Your task to perform on an android device: Open the calendar and show me this week's events? Image 0: 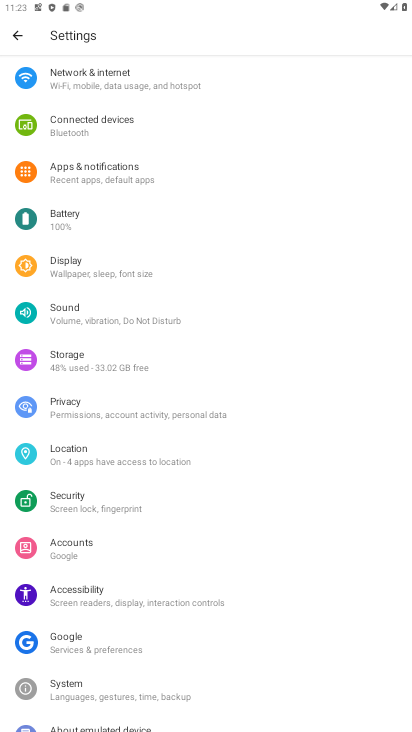
Step 0: press home button
Your task to perform on an android device: Open the calendar and show me this week's events? Image 1: 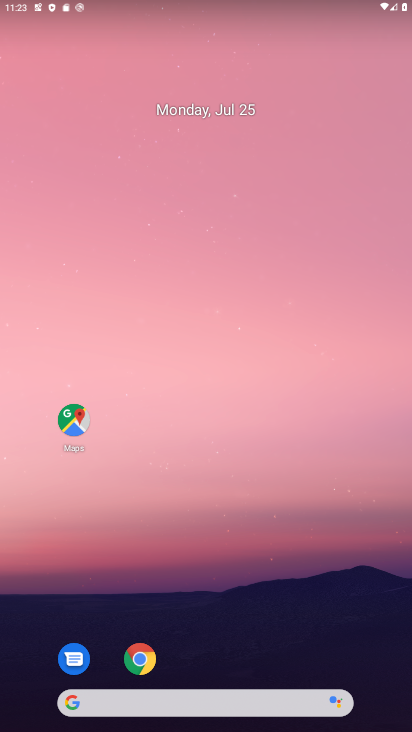
Step 1: drag from (245, 271) to (297, 32)
Your task to perform on an android device: Open the calendar and show me this week's events? Image 2: 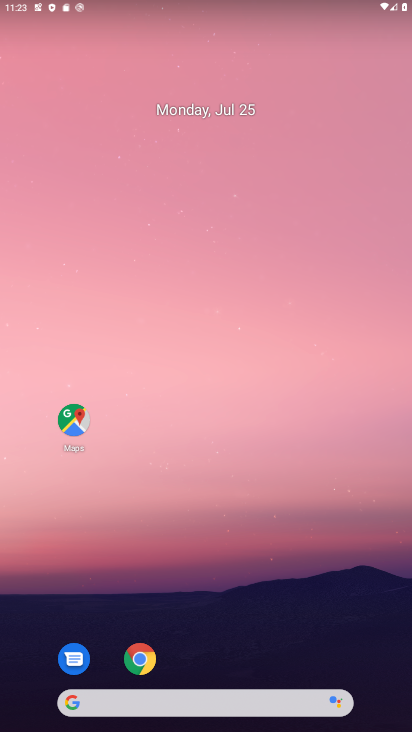
Step 2: drag from (99, 554) to (319, 143)
Your task to perform on an android device: Open the calendar and show me this week's events? Image 3: 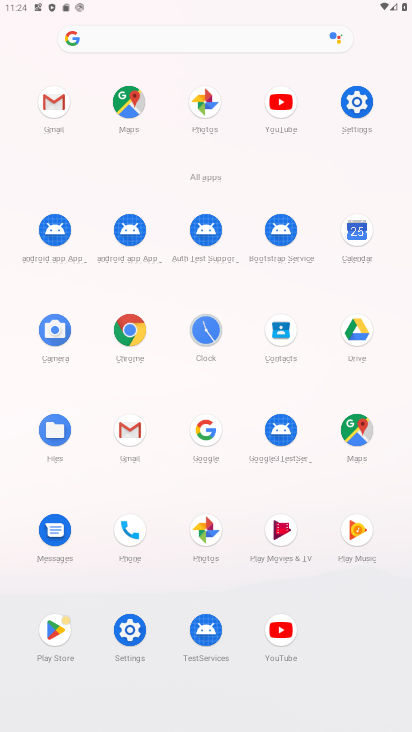
Step 3: click (334, 237)
Your task to perform on an android device: Open the calendar and show me this week's events? Image 4: 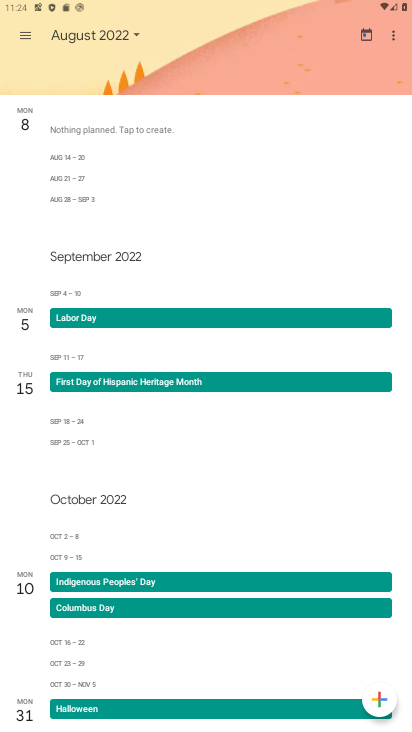
Step 4: click (115, 42)
Your task to perform on an android device: Open the calendar and show me this week's events? Image 5: 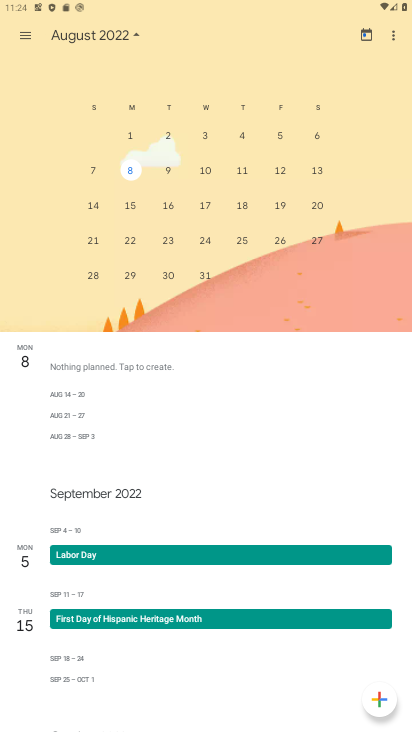
Step 5: drag from (8, 156) to (407, 211)
Your task to perform on an android device: Open the calendar and show me this week's events? Image 6: 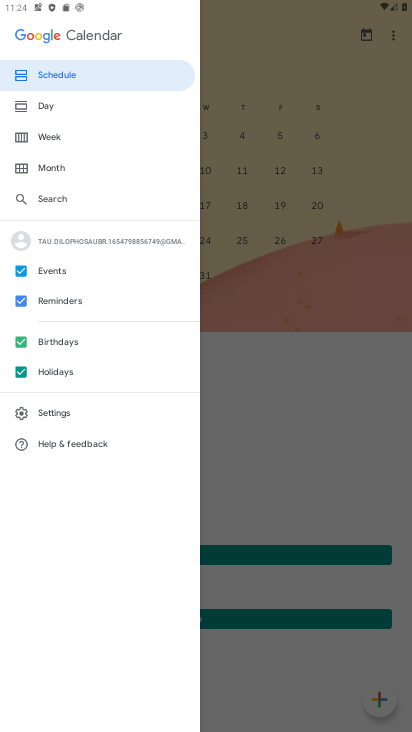
Step 6: click (349, 416)
Your task to perform on an android device: Open the calendar and show me this week's events? Image 7: 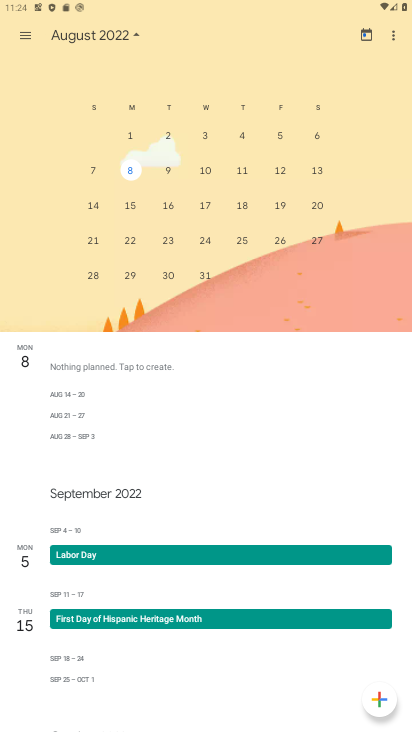
Step 7: task complete